Your task to perform on an android device: all mails in gmail Image 0: 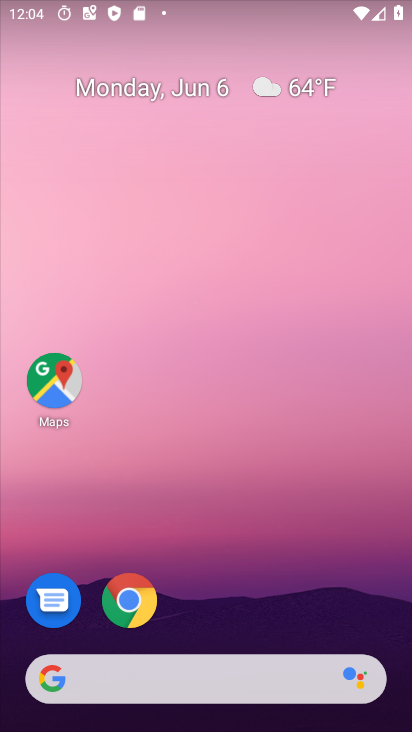
Step 0: drag from (199, 365) to (169, 153)
Your task to perform on an android device: all mails in gmail Image 1: 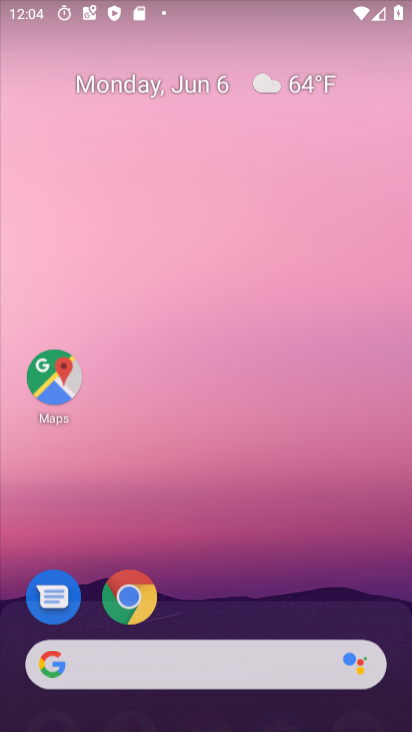
Step 1: drag from (250, 674) to (166, 115)
Your task to perform on an android device: all mails in gmail Image 2: 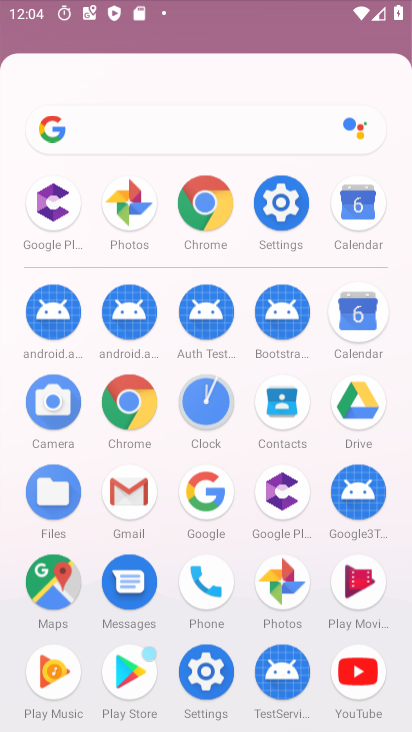
Step 2: drag from (180, 375) to (93, 11)
Your task to perform on an android device: all mails in gmail Image 3: 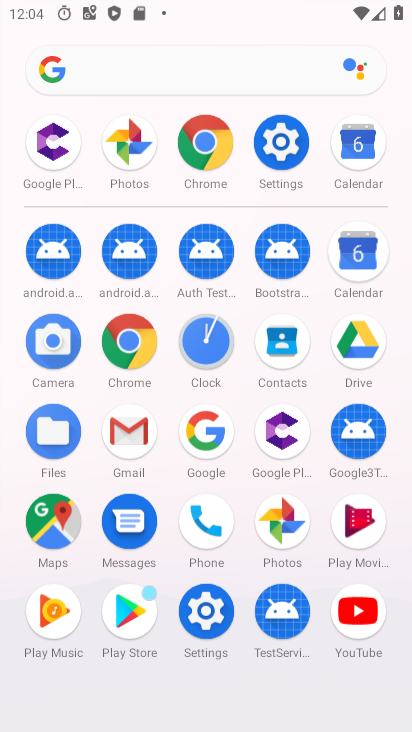
Step 3: drag from (118, 303) to (96, 5)
Your task to perform on an android device: all mails in gmail Image 4: 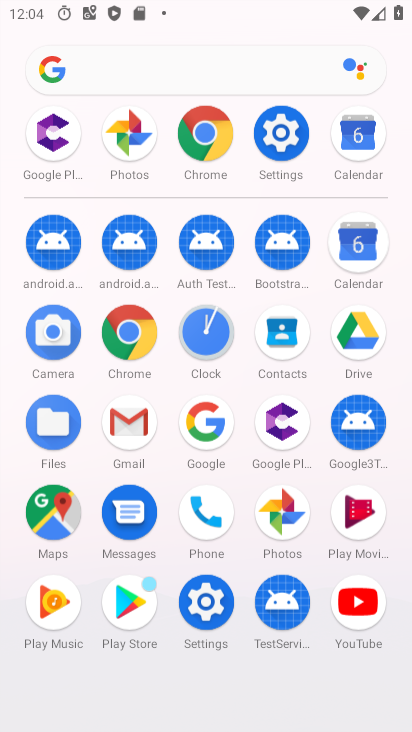
Step 4: drag from (185, 414) to (165, 28)
Your task to perform on an android device: all mails in gmail Image 5: 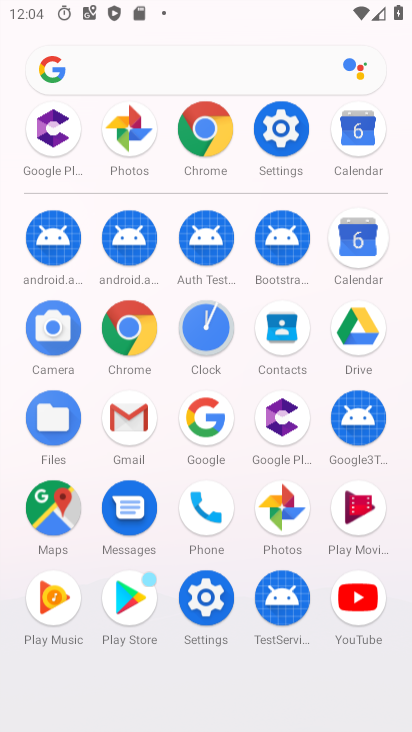
Step 5: drag from (233, 526) to (186, 49)
Your task to perform on an android device: all mails in gmail Image 6: 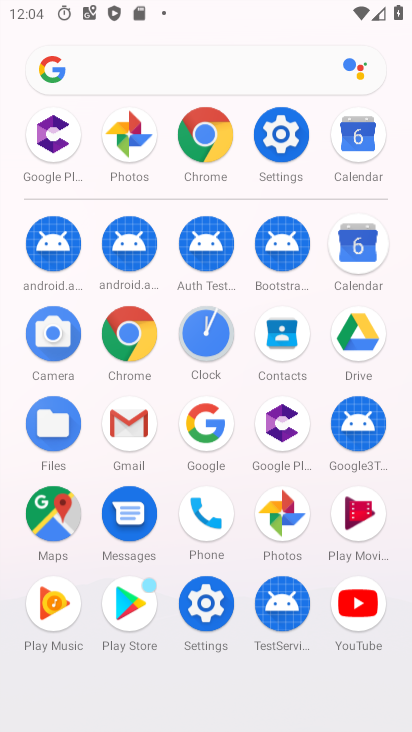
Step 6: drag from (168, 342) to (115, 94)
Your task to perform on an android device: all mails in gmail Image 7: 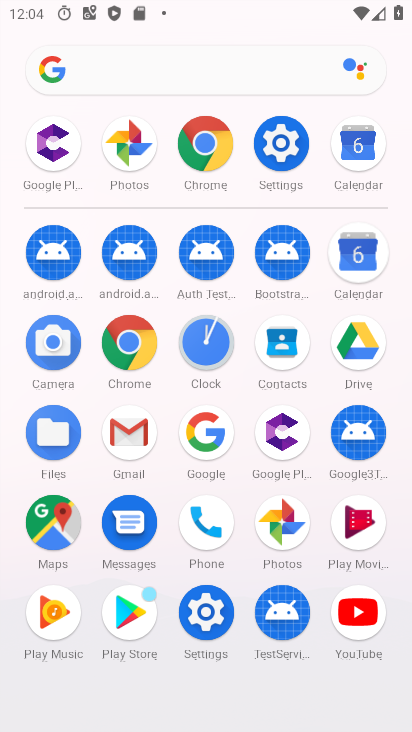
Step 7: click (132, 443)
Your task to perform on an android device: all mails in gmail Image 8: 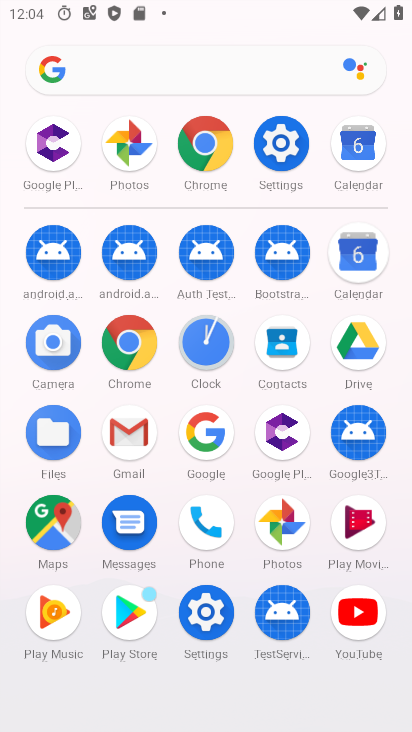
Step 8: click (132, 438)
Your task to perform on an android device: all mails in gmail Image 9: 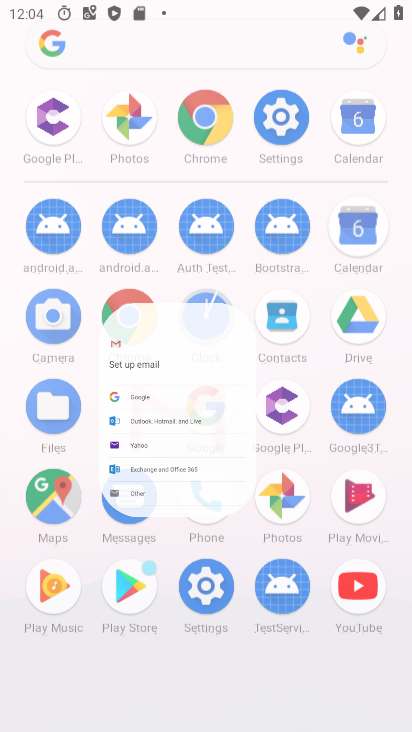
Step 9: click (130, 436)
Your task to perform on an android device: all mails in gmail Image 10: 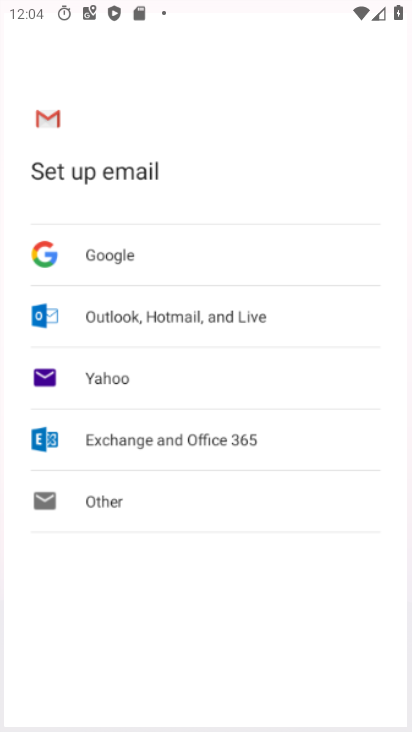
Step 10: click (128, 433)
Your task to perform on an android device: all mails in gmail Image 11: 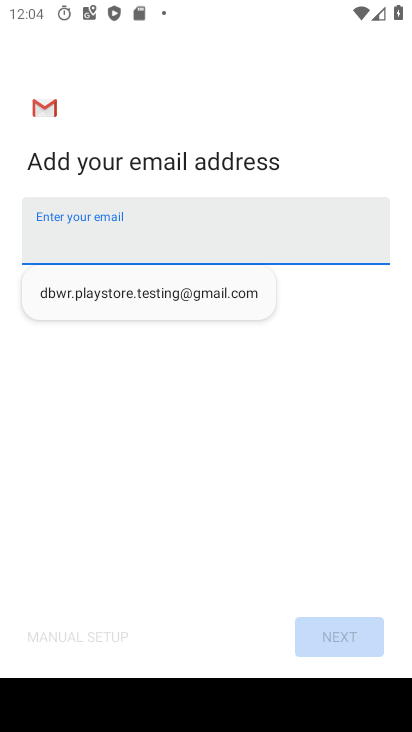
Step 11: press back button
Your task to perform on an android device: all mails in gmail Image 12: 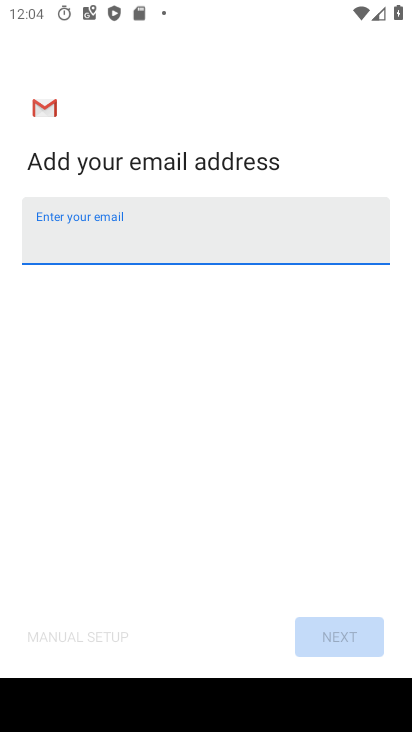
Step 12: press back button
Your task to perform on an android device: all mails in gmail Image 13: 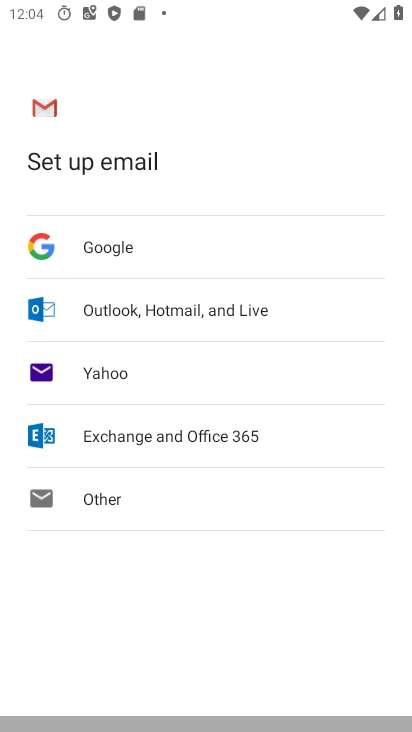
Step 13: press home button
Your task to perform on an android device: all mails in gmail Image 14: 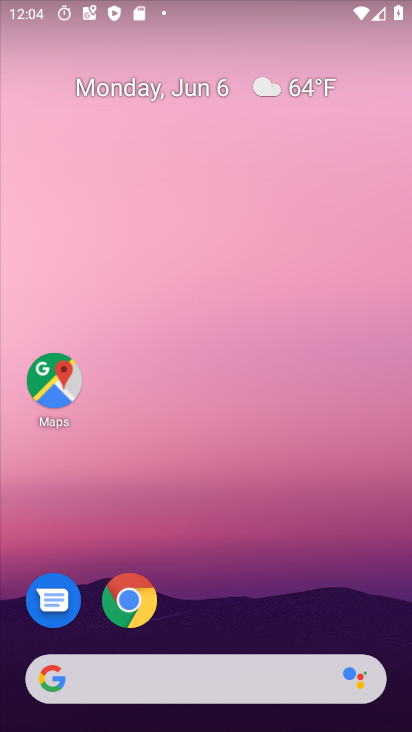
Step 14: drag from (218, 660) to (86, 98)
Your task to perform on an android device: all mails in gmail Image 15: 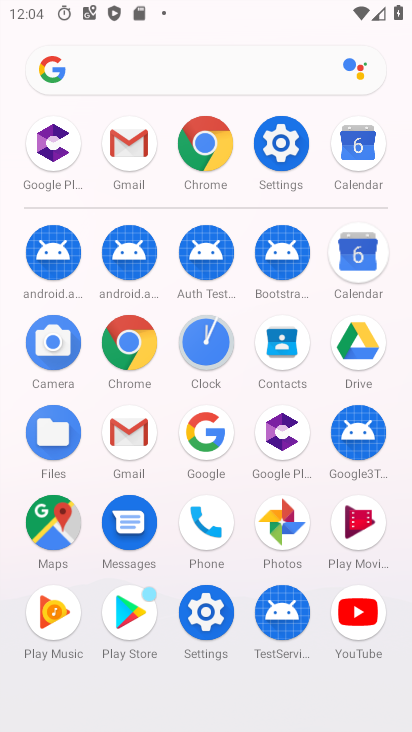
Step 15: click (133, 445)
Your task to perform on an android device: all mails in gmail Image 16: 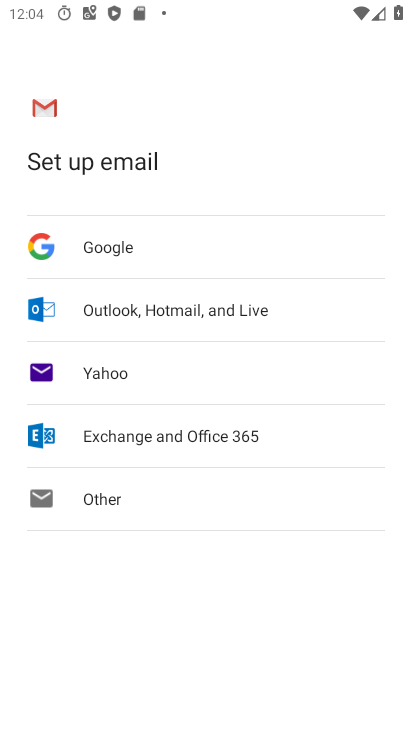
Step 16: press back button
Your task to perform on an android device: all mails in gmail Image 17: 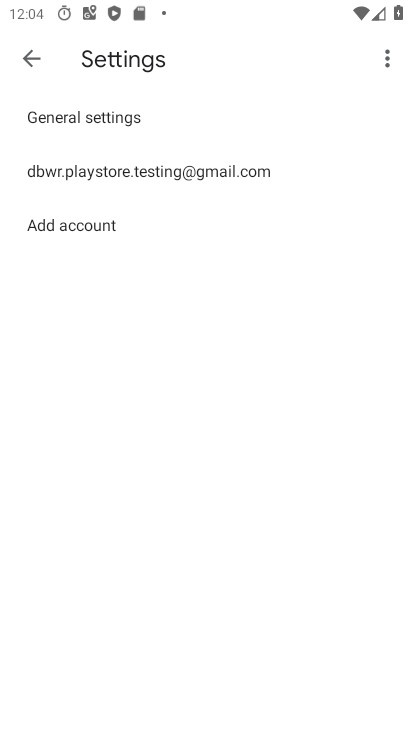
Step 17: click (31, 58)
Your task to perform on an android device: all mails in gmail Image 18: 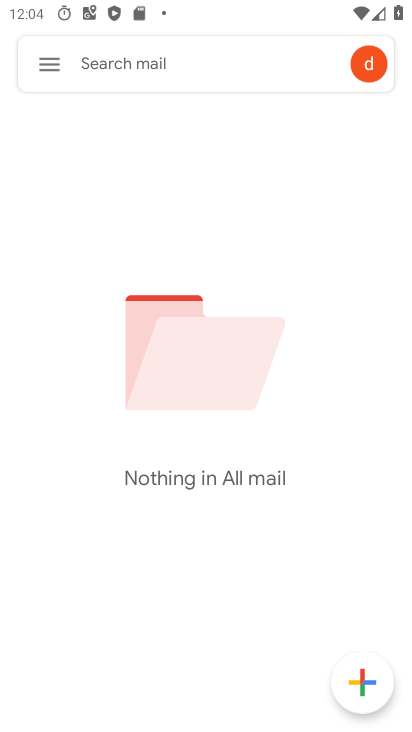
Step 18: task complete